Your task to perform on an android device: set the stopwatch Image 0: 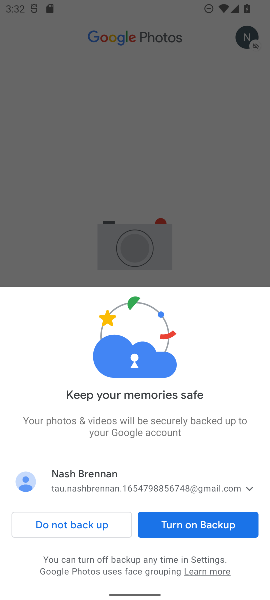
Step 0: press back button
Your task to perform on an android device: set the stopwatch Image 1: 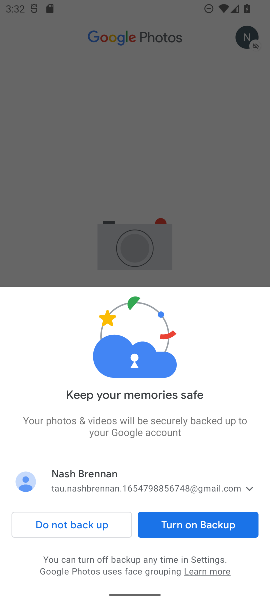
Step 1: press home button
Your task to perform on an android device: set the stopwatch Image 2: 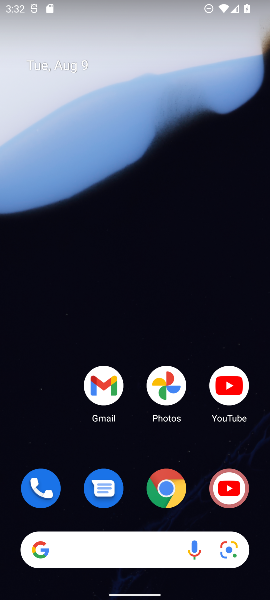
Step 2: drag from (206, 451) to (185, 109)
Your task to perform on an android device: set the stopwatch Image 3: 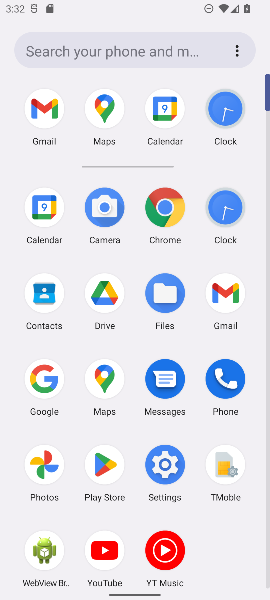
Step 3: click (234, 207)
Your task to perform on an android device: set the stopwatch Image 4: 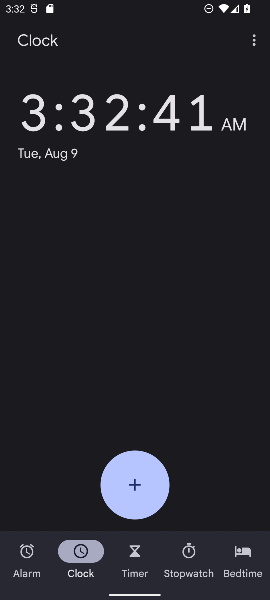
Step 4: click (194, 570)
Your task to perform on an android device: set the stopwatch Image 5: 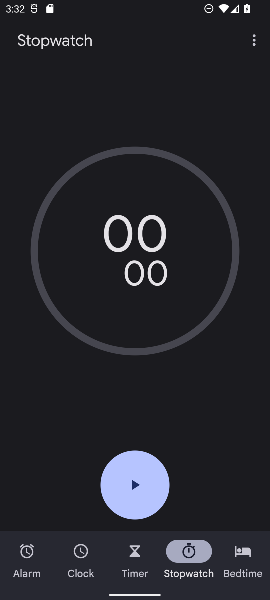
Step 5: click (149, 489)
Your task to perform on an android device: set the stopwatch Image 6: 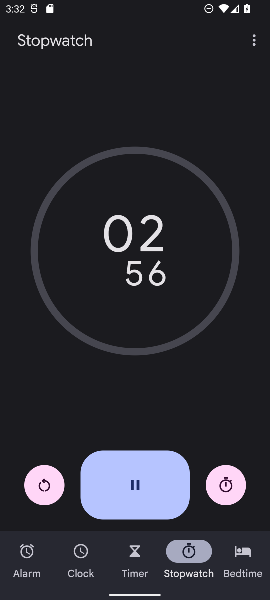
Step 6: task complete